Your task to perform on an android device: Open the web browser Image 0: 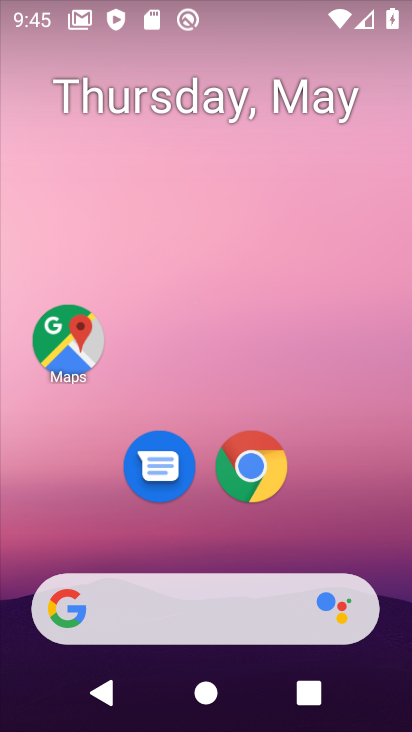
Step 0: click (259, 481)
Your task to perform on an android device: Open the web browser Image 1: 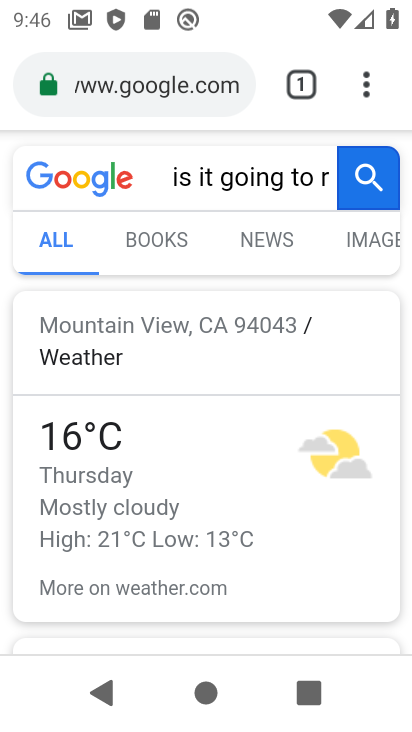
Step 1: task complete